Your task to perform on an android device: Find coffee shops on Maps Image 0: 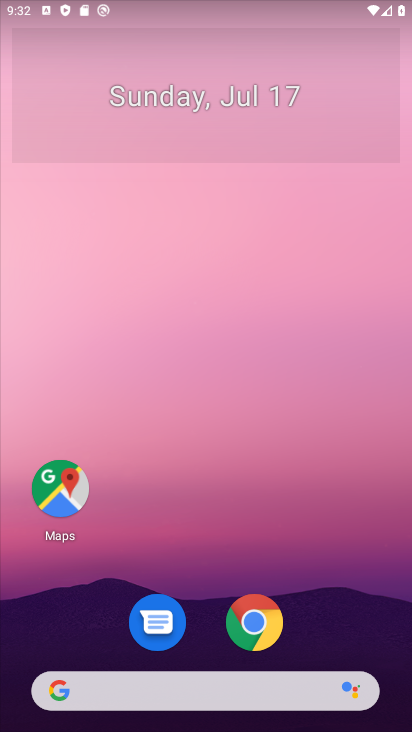
Step 0: click (46, 493)
Your task to perform on an android device: Find coffee shops on Maps Image 1: 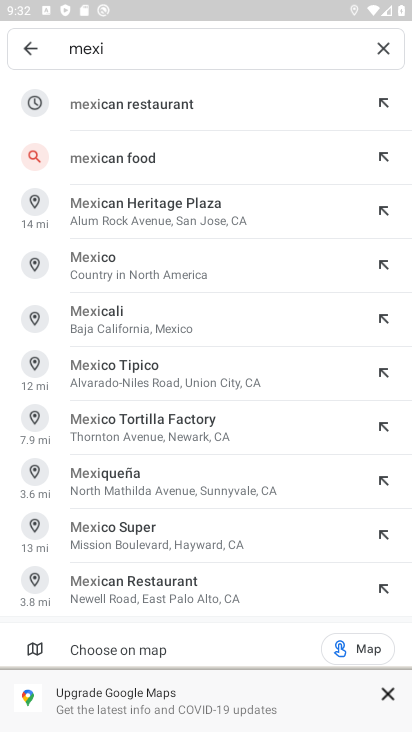
Step 1: click (382, 47)
Your task to perform on an android device: Find coffee shops on Maps Image 2: 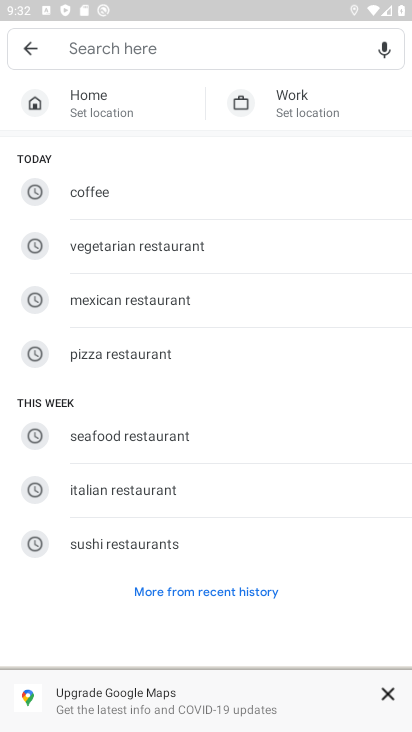
Step 2: click (106, 205)
Your task to perform on an android device: Find coffee shops on Maps Image 3: 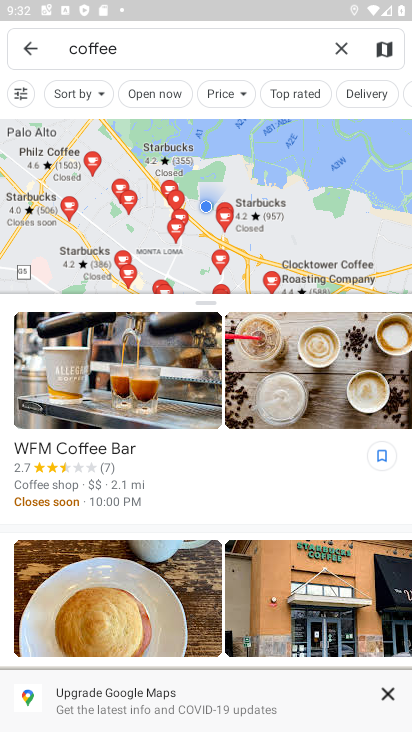
Step 3: task complete